Your task to perform on an android device: Go to Wikipedia Image 0: 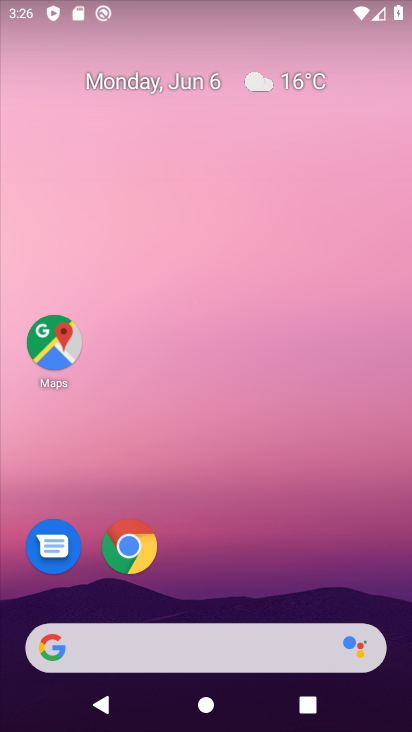
Step 0: drag from (284, 477) to (1, 120)
Your task to perform on an android device: Go to Wikipedia Image 1: 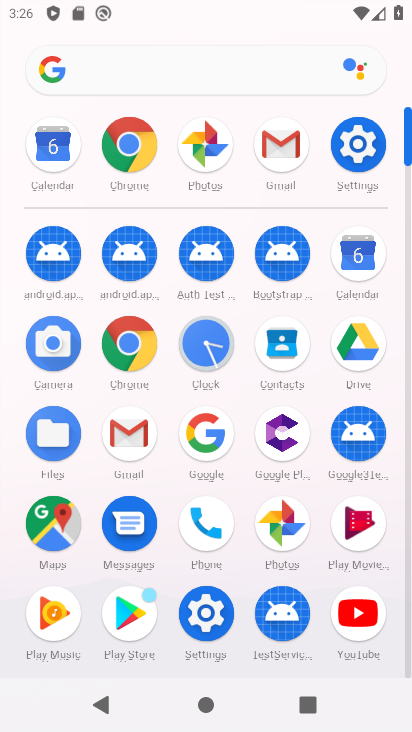
Step 1: click (124, 172)
Your task to perform on an android device: Go to Wikipedia Image 2: 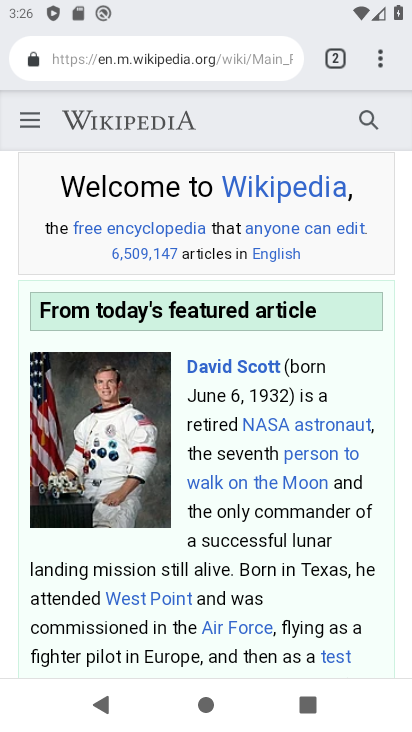
Step 2: task complete